Your task to perform on an android device: turn off sleep mode Image 0: 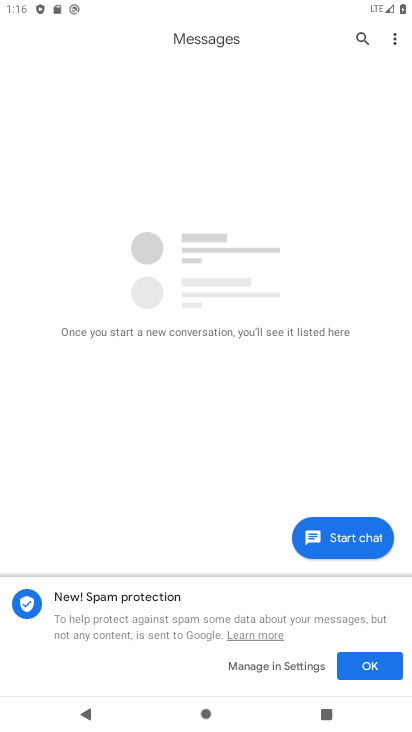
Step 0: press home button
Your task to perform on an android device: turn off sleep mode Image 1: 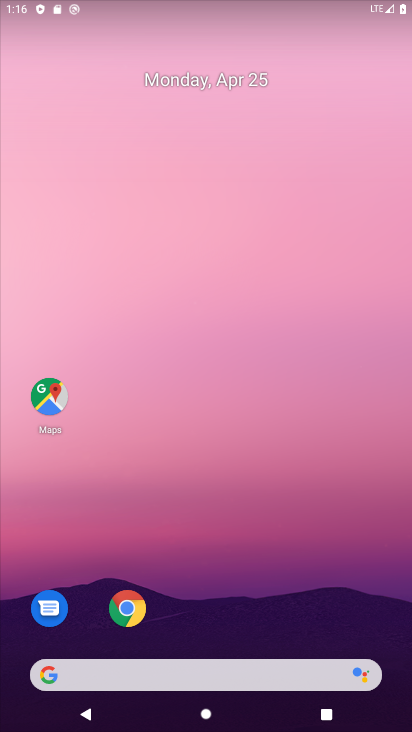
Step 1: drag from (189, 643) to (201, 126)
Your task to perform on an android device: turn off sleep mode Image 2: 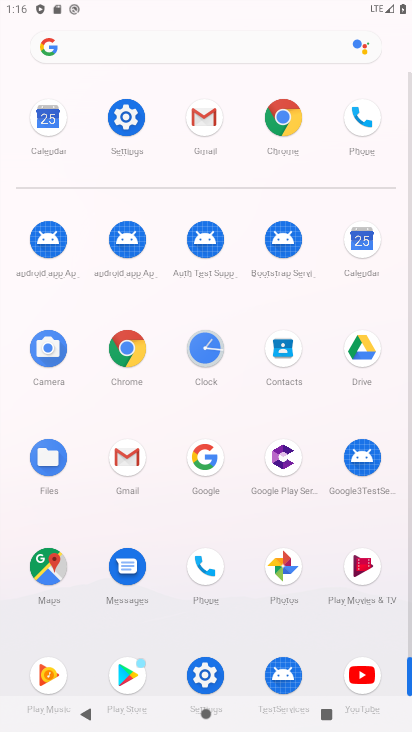
Step 2: click (120, 107)
Your task to perform on an android device: turn off sleep mode Image 3: 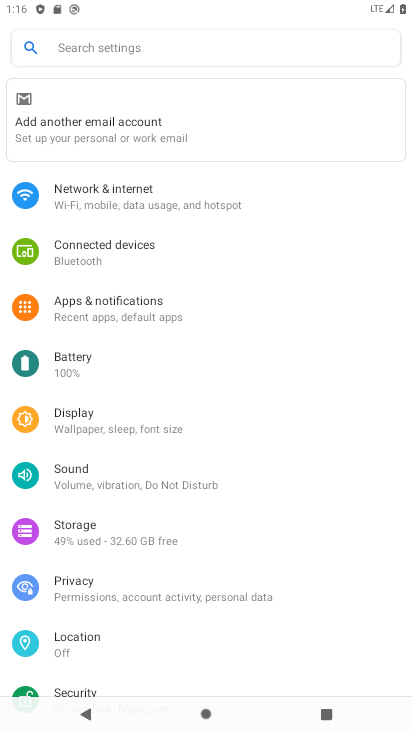
Step 3: click (191, 432)
Your task to perform on an android device: turn off sleep mode Image 4: 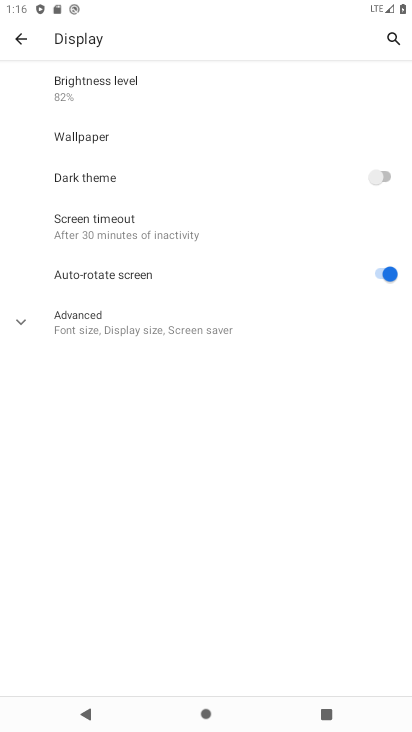
Step 4: click (132, 229)
Your task to perform on an android device: turn off sleep mode Image 5: 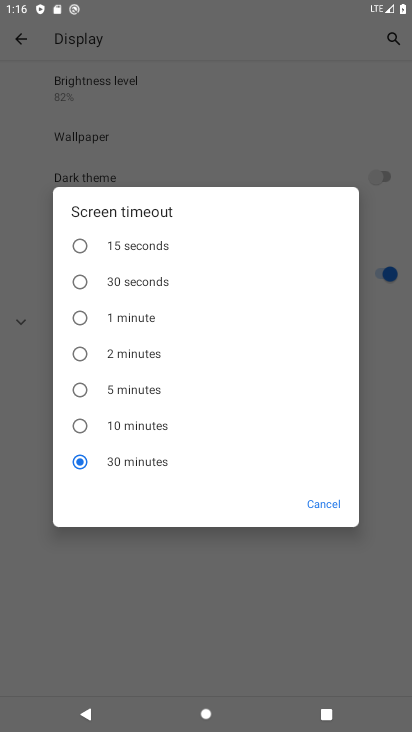
Step 5: task complete